Your task to perform on an android device: open device folders in google photos Image 0: 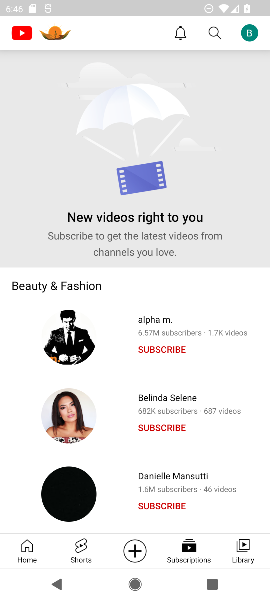
Step 0: press home button
Your task to perform on an android device: open device folders in google photos Image 1: 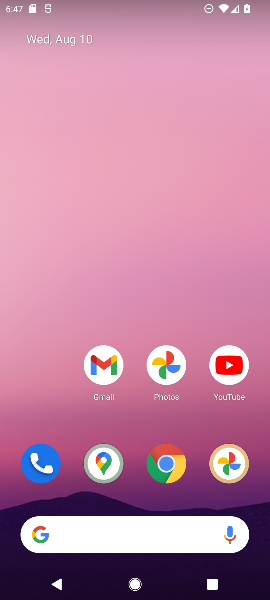
Step 1: click (169, 366)
Your task to perform on an android device: open device folders in google photos Image 2: 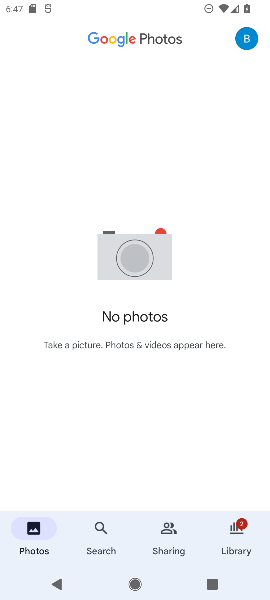
Step 2: click (243, 35)
Your task to perform on an android device: open device folders in google photos Image 3: 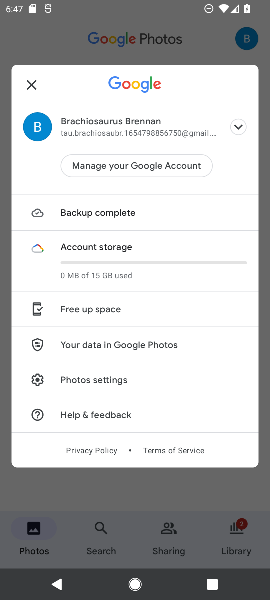
Step 3: click (28, 83)
Your task to perform on an android device: open device folders in google photos Image 4: 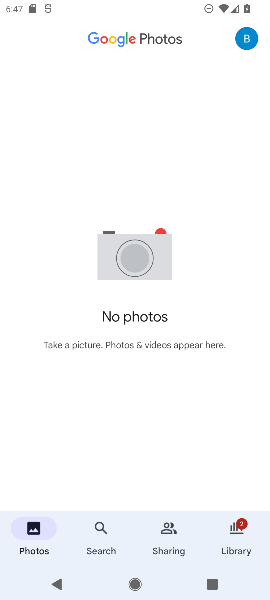
Step 4: click (100, 521)
Your task to perform on an android device: open device folders in google photos Image 5: 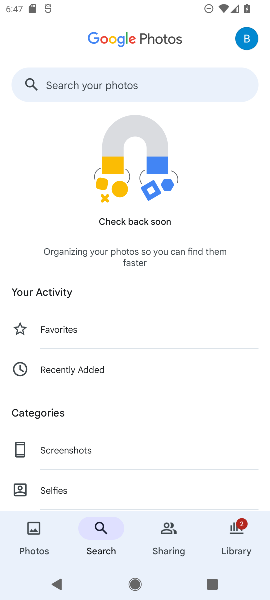
Step 5: click (99, 83)
Your task to perform on an android device: open device folders in google photos Image 6: 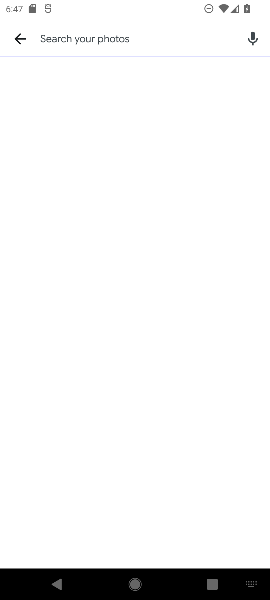
Step 6: type "device"
Your task to perform on an android device: open device folders in google photos Image 7: 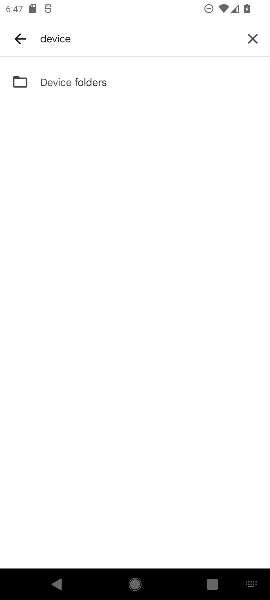
Step 7: click (50, 79)
Your task to perform on an android device: open device folders in google photos Image 8: 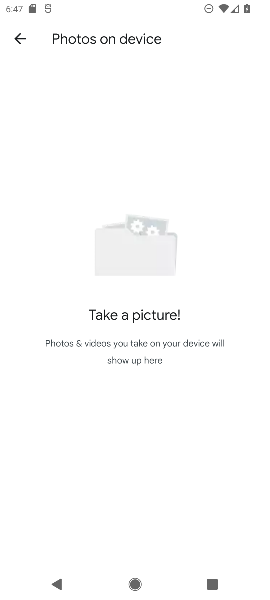
Step 8: task complete